Your task to perform on an android device: delete the emails in spam in the gmail app Image 0: 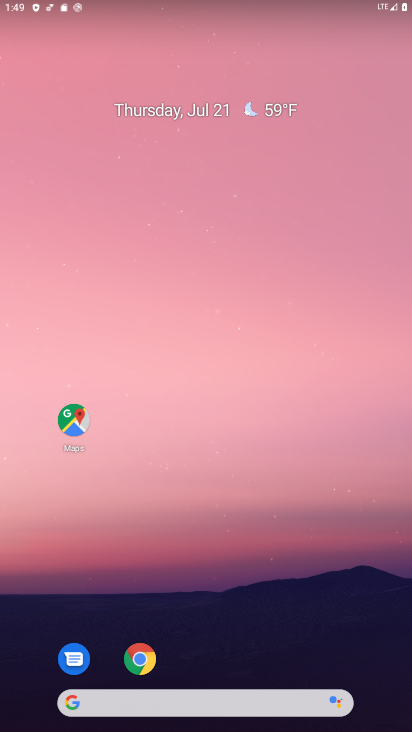
Step 0: drag from (168, 685) to (0, 174)
Your task to perform on an android device: delete the emails in spam in the gmail app Image 1: 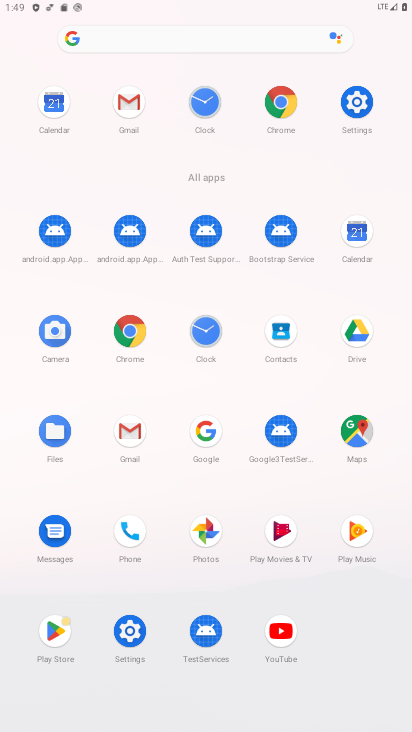
Step 1: click (121, 424)
Your task to perform on an android device: delete the emails in spam in the gmail app Image 2: 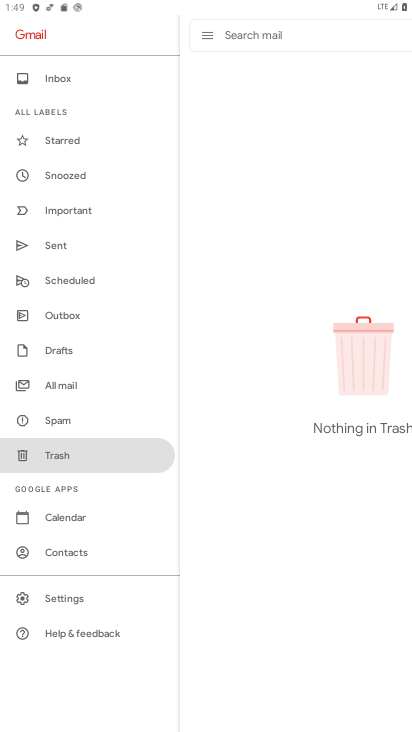
Step 2: click (62, 412)
Your task to perform on an android device: delete the emails in spam in the gmail app Image 3: 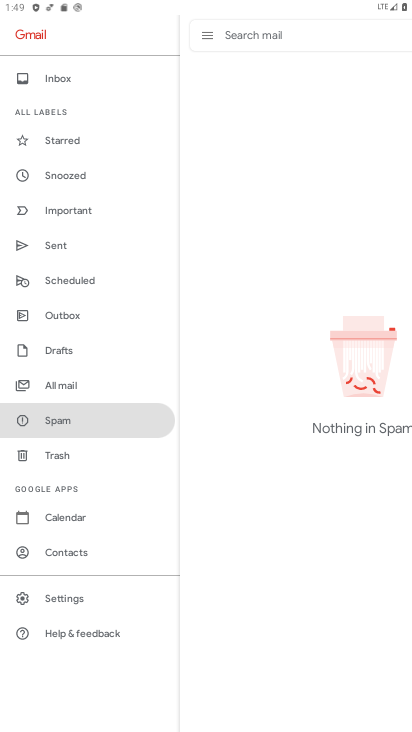
Step 3: task complete